Your task to perform on an android device: Go to Maps Image 0: 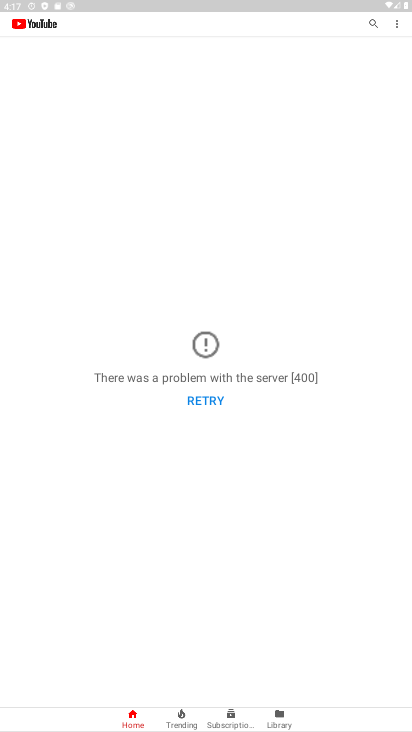
Step 0: drag from (187, 707) to (113, 266)
Your task to perform on an android device: Go to Maps Image 1: 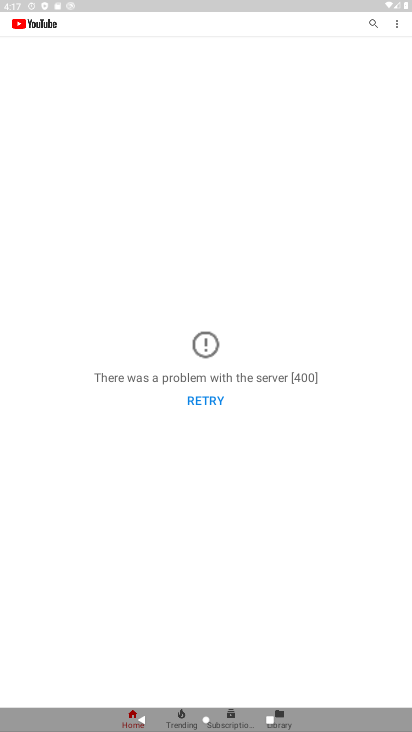
Step 1: press back button
Your task to perform on an android device: Go to Maps Image 2: 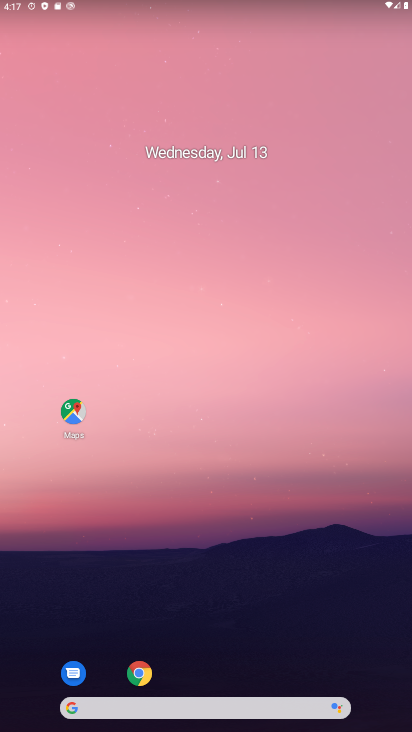
Step 2: click (75, 415)
Your task to perform on an android device: Go to Maps Image 3: 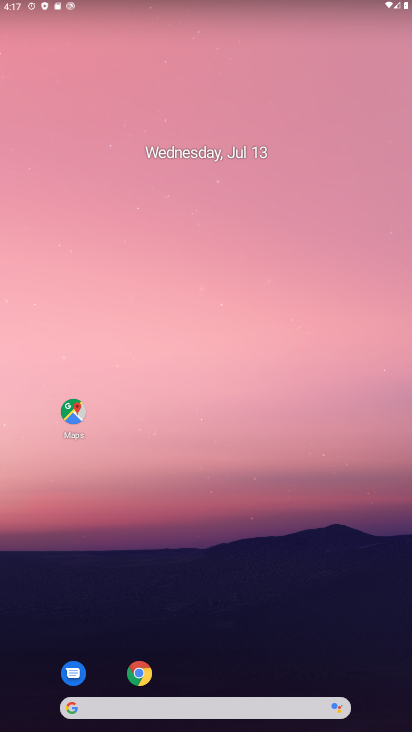
Step 3: click (76, 416)
Your task to perform on an android device: Go to Maps Image 4: 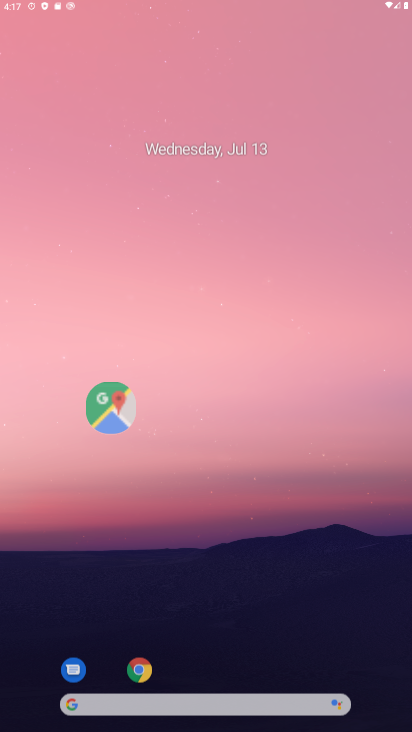
Step 4: click (79, 415)
Your task to perform on an android device: Go to Maps Image 5: 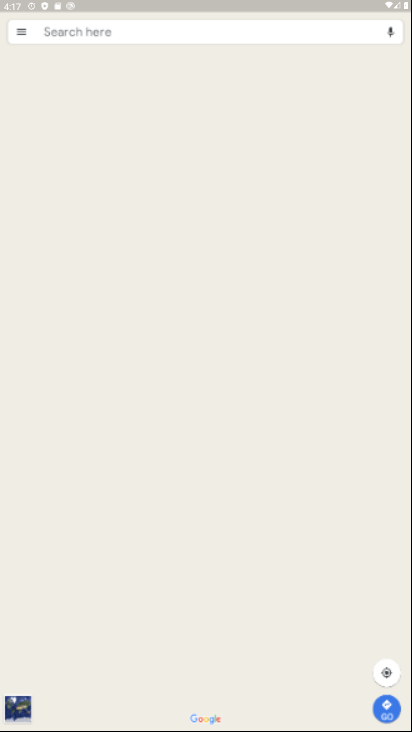
Step 5: click (79, 415)
Your task to perform on an android device: Go to Maps Image 6: 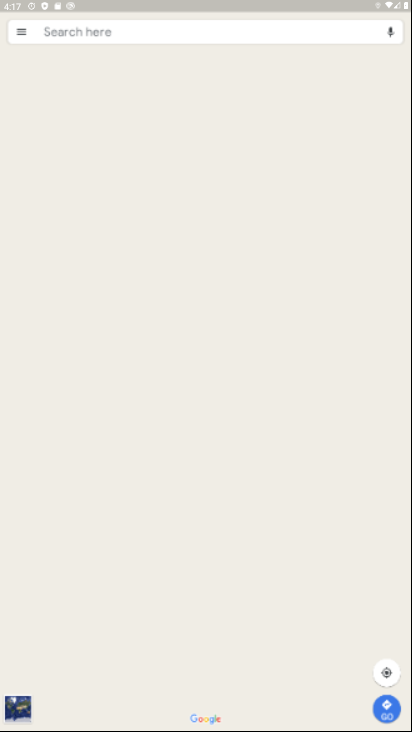
Step 6: click (79, 415)
Your task to perform on an android device: Go to Maps Image 7: 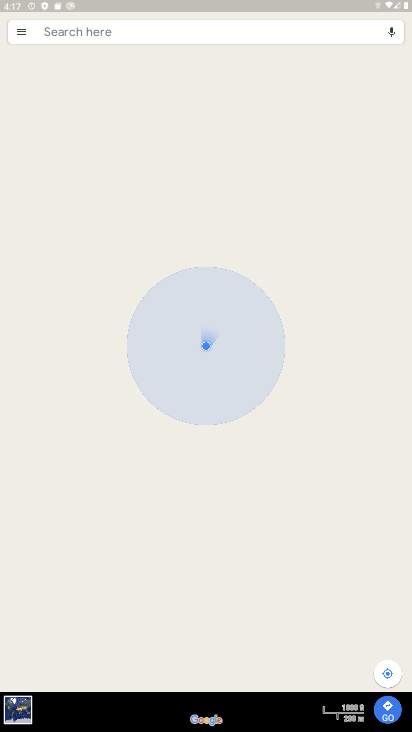
Step 7: task complete